Your task to perform on an android device: turn notification dots on Image 0: 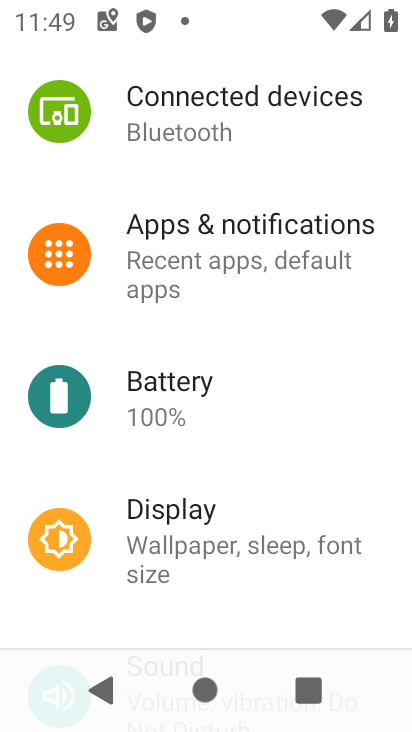
Step 0: click (206, 267)
Your task to perform on an android device: turn notification dots on Image 1: 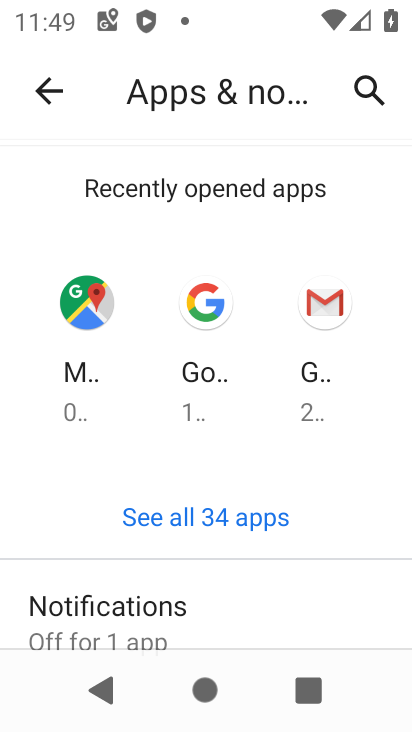
Step 1: drag from (172, 574) to (130, 6)
Your task to perform on an android device: turn notification dots on Image 2: 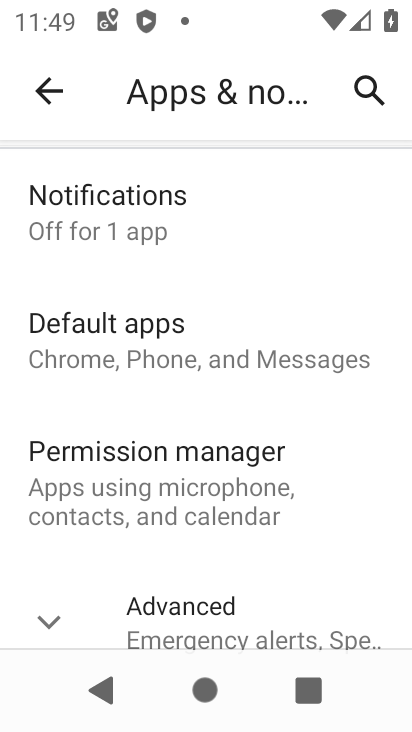
Step 2: click (146, 222)
Your task to perform on an android device: turn notification dots on Image 3: 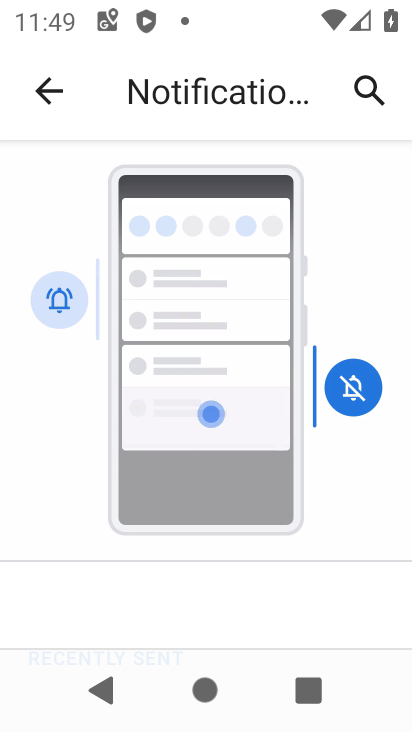
Step 3: drag from (220, 543) to (188, 9)
Your task to perform on an android device: turn notification dots on Image 4: 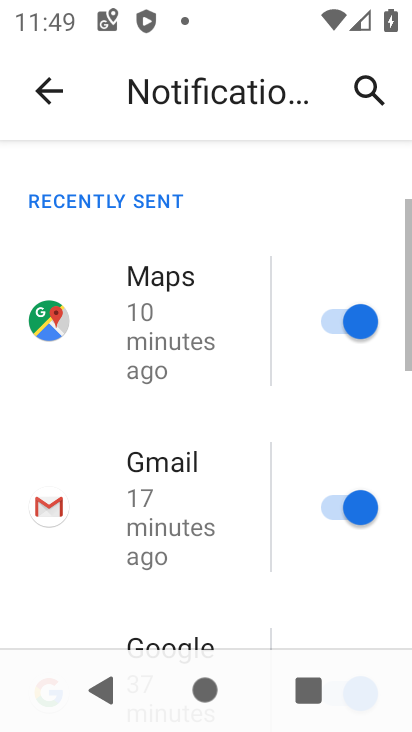
Step 4: drag from (236, 537) to (234, 70)
Your task to perform on an android device: turn notification dots on Image 5: 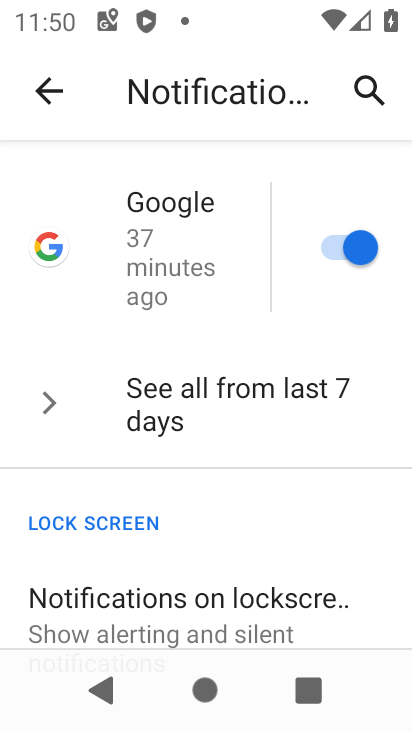
Step 5: drag from (188, 602) to (192, 118)
Your task to perform on an android device: turn notification dots on Image 6: 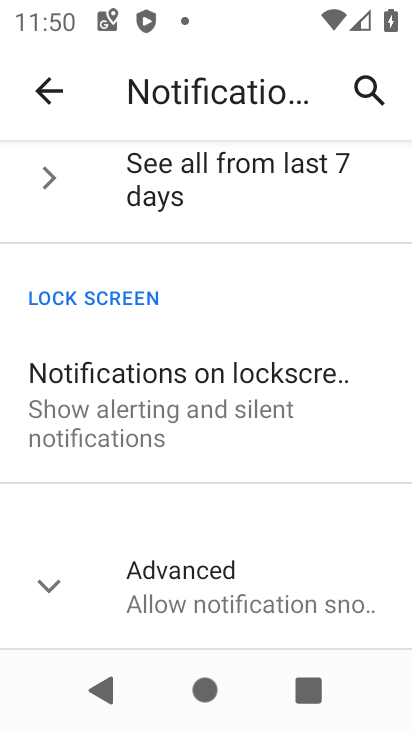
Step 6: click (217, 601)
Your task to perform on an android device: turn notification dots on Image 7: 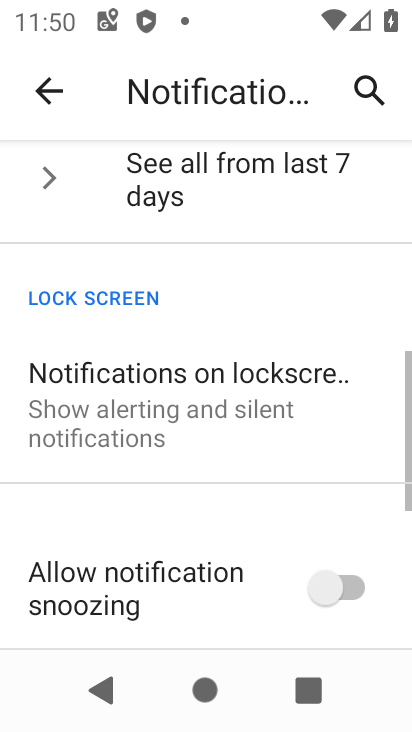
Step 7: task complete